Your task to perform on an android device: turn on translation in the chrome app Image 0: 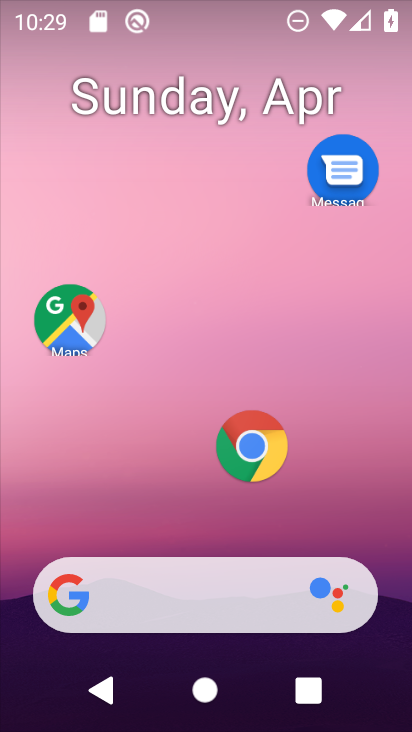
Step 0: drag from (197, 513) to (292, 38)
Your task to perform on an android device: turn on translation in the chrome app Image 1: 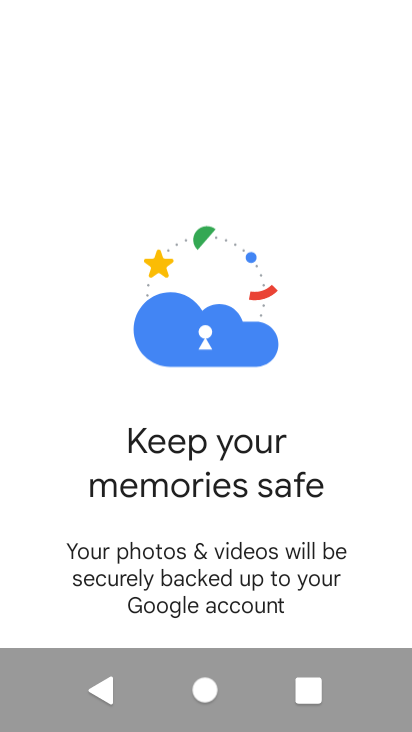
Step 1: press home button
Your task to perform on an android device: turn on translation in the chrome app Image 2: 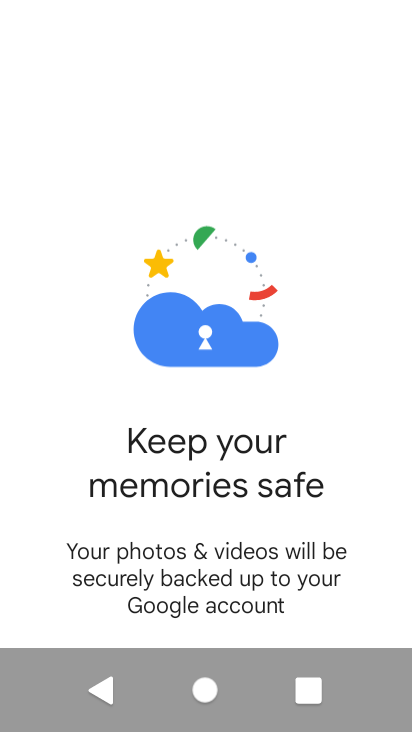
Step 2: drag from (208, 542) to (309, 192)
Your task to perform on an android device: turn on translation in the chrome app Image 3: 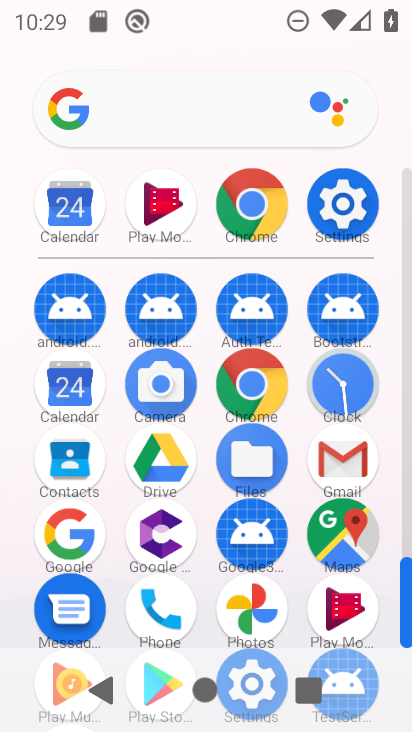
Step 3: click (254, 380)
Your task to perform on an android device: turn on translation in the chrome app Image 4: 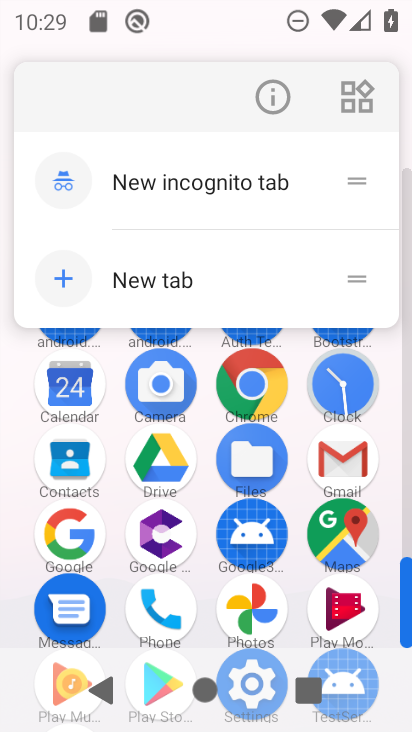
Step 4: click (276, 101)
Your task to perform on an android device: turn on translation in the chrome app Image 5: 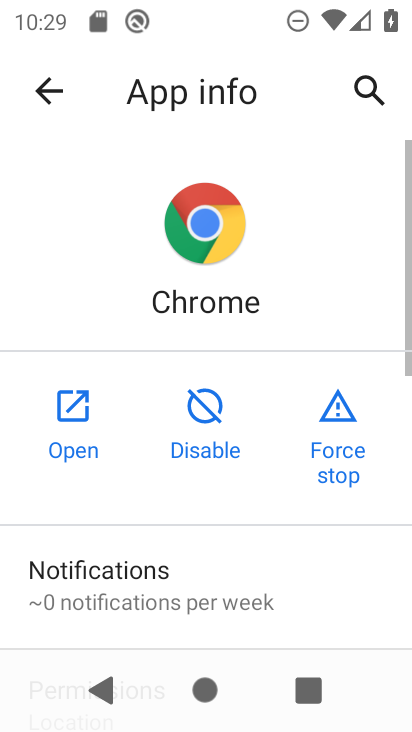
Step 5: click (80, 416)
Your task to perform on an android device: turn on translation in the chrome app Image 6: 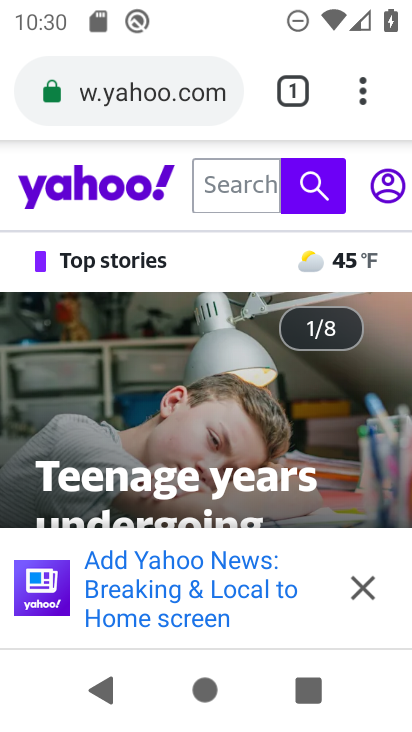
Step 6: drag from (361, 89) to (188, 466)
Your task to perform on an android device: turn on translation in the chrome app Image 7: 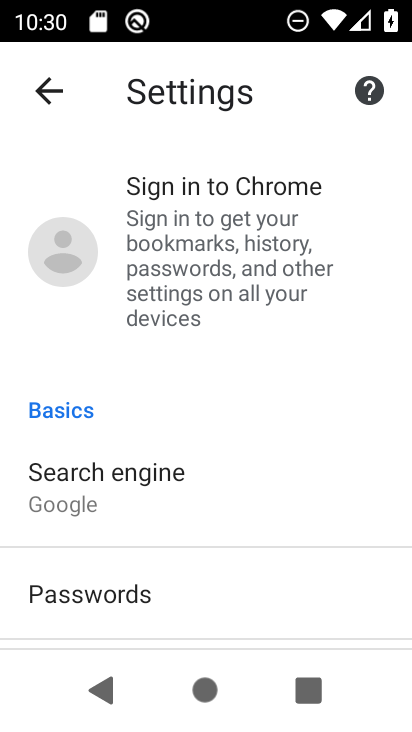
Step 7: drag from (223, 420) to (283, 114)
Your task to perform on an android device: turn on translation in the chrome app Image 8: 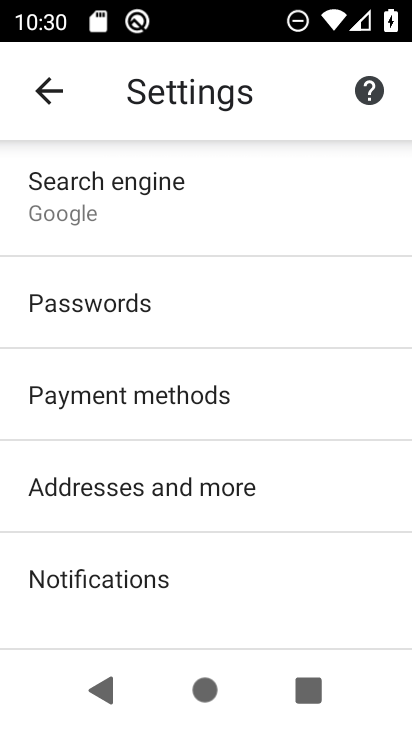
Step 8: drag from (259, 608) to (288, 169)
Your task to perform on an android device: turn on translation in the chrome app Image 9: 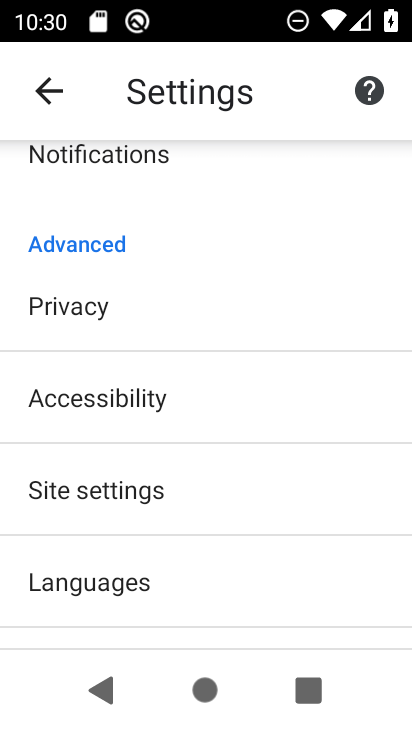
Step 9: drag from (197, 477) to (325, 90)
Your task to perform on an android device: turn on translation in the chrome app Image 10: 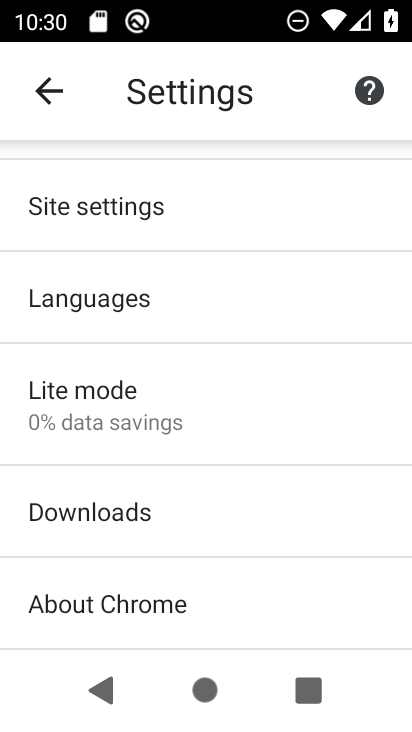
Step 10: click (129, 309)
Your task to perform on an android device: turn on translation in the chrome app Image 11: 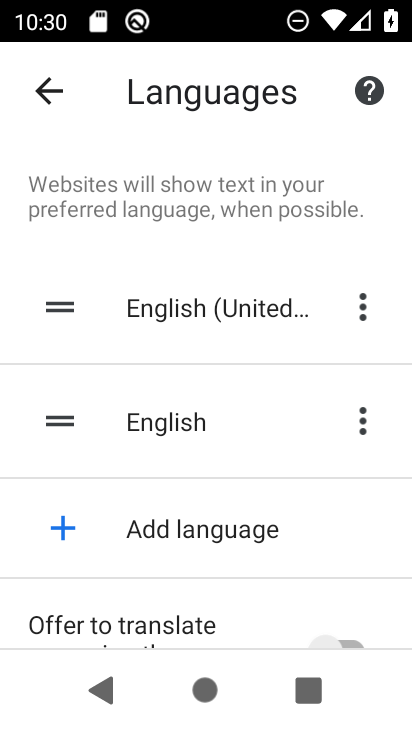
Step 11: drag from (165, 562) to (303, 225)
Your task to perform on an android device: turn on translation in the chrome app Image 12: 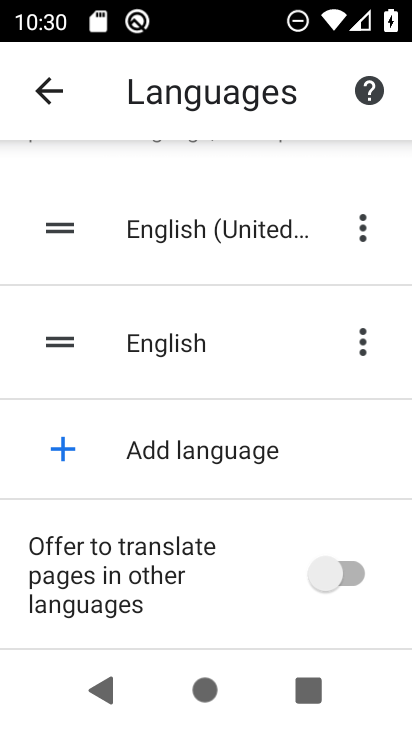
Step 12: click (264, 522)
Your task to perform on an android device: turn on translation in the chrome app Image 13: 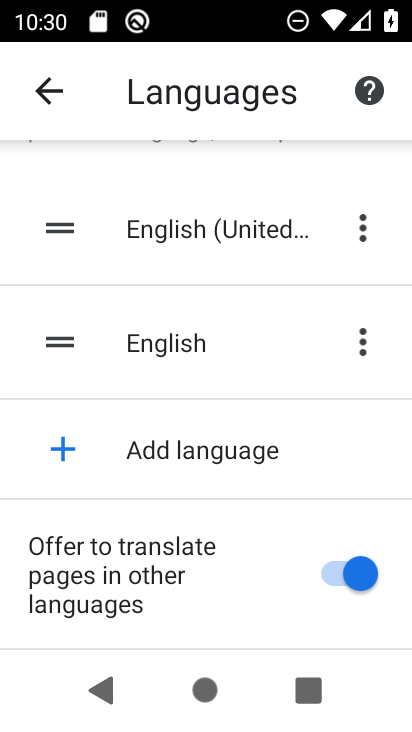
Step 13: task complete